Your task to perform on an android device: open app "Nova Launcher" (install if not already installed) and enter user name: "haggard@gmail.com" and password: "sadder" Image 0: 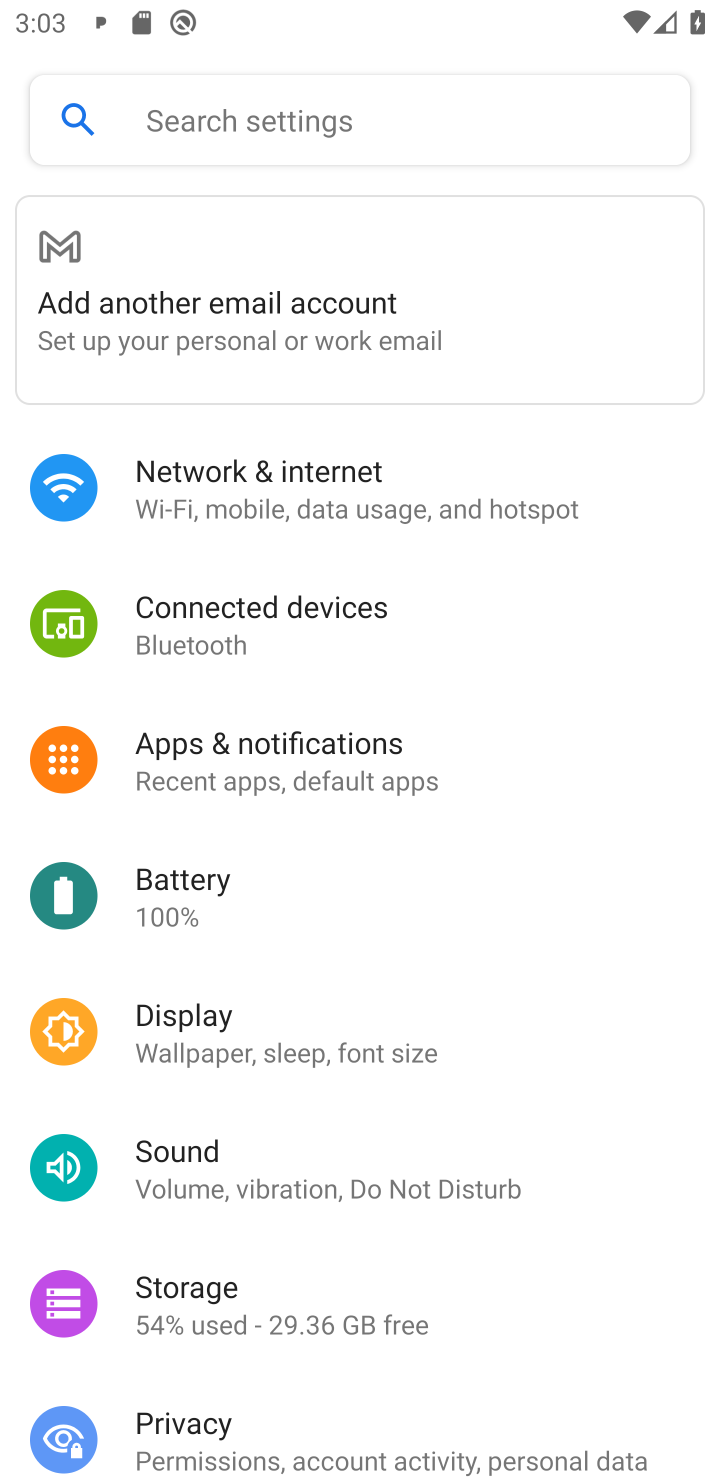
Step 0: click (338, 670)
Your task to perform on an android device: open app "Nova Launcher" (install if not already installed) and enter user name: "haggard@gmail.com" and password: "sadder" Image 1: 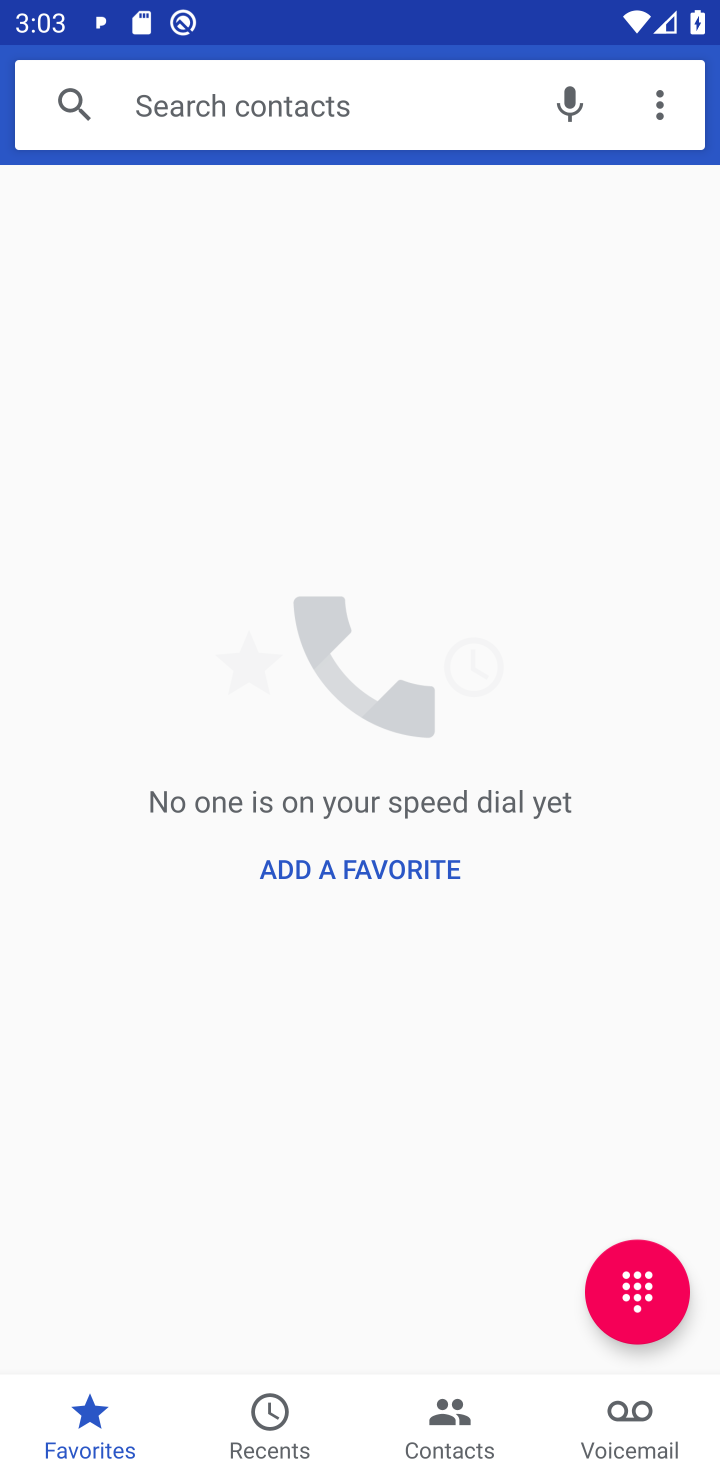
Step 1: press home button
Your task to perform on an android device: open app "Nova Launcher" (install if not already installed) and enter user name: "haggard@gmail.com" and password: "sadder" Image 2: 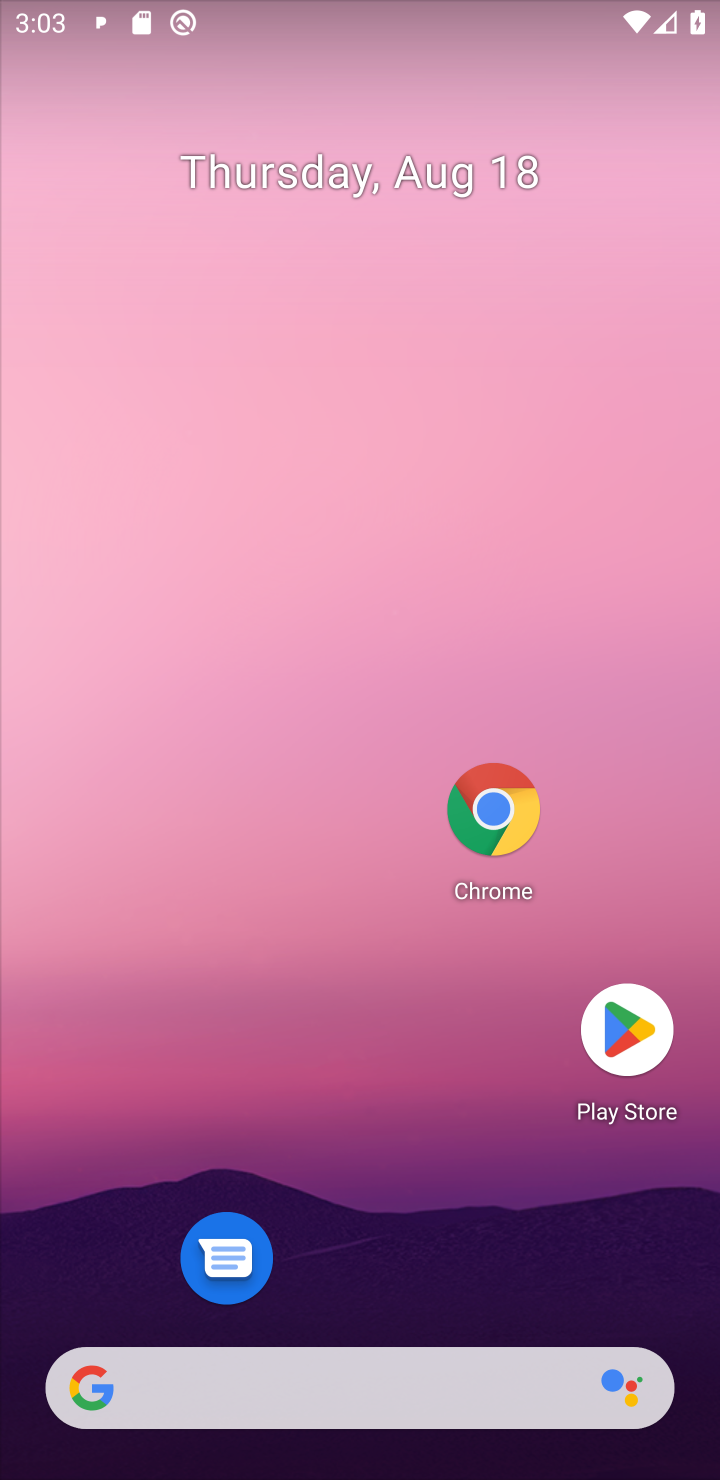
Step 2: click (619, 1015)
Your task to perform on an android device: open app "Nova Launcher" (install if not already installed) and enter user name: "haggard@gmail.com" and password: "sadder" Image 3: 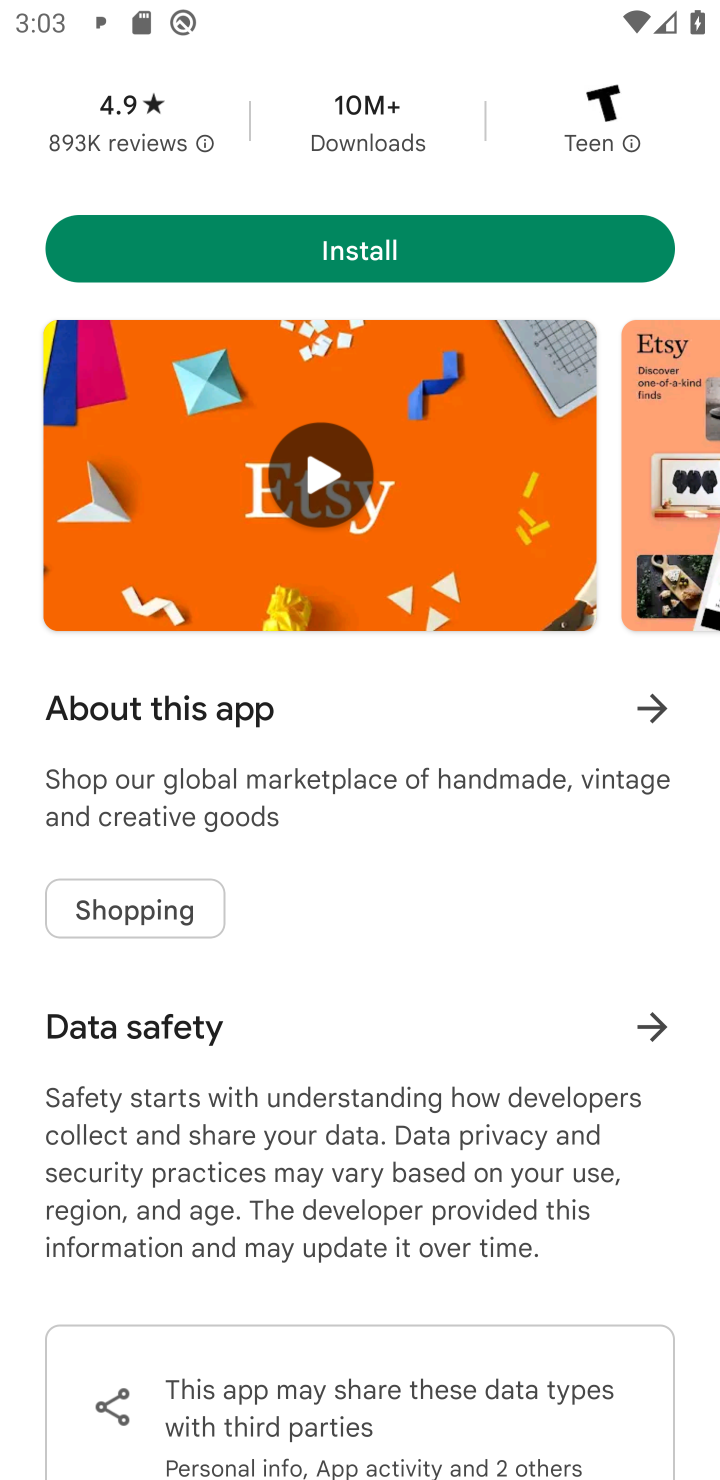
Step 3: drag from (264, 297) to (269, 1071)
Your task to perform on an android device: open app "Nova Launcher" (install if not already installed) and enter user name: "haggard@gmail.com" and password: "sadder" Image 4: 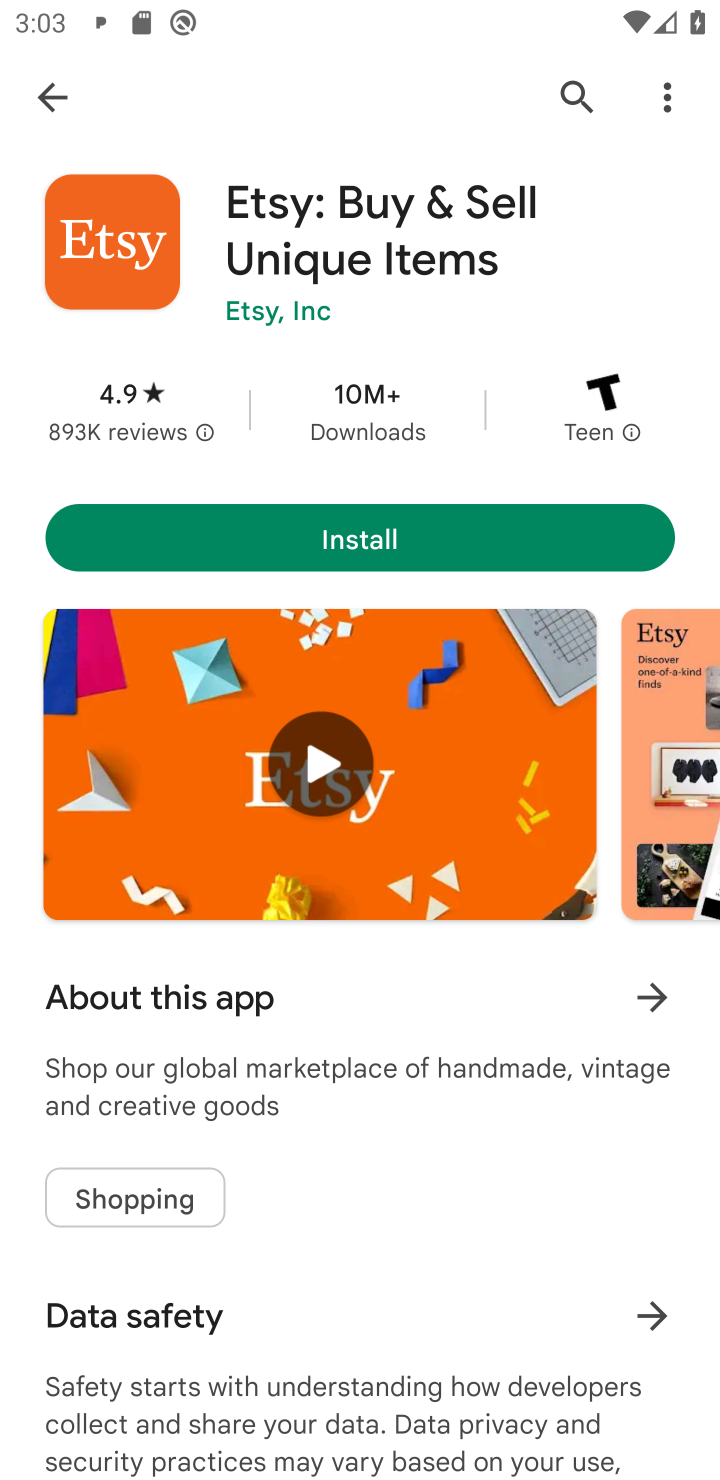
Step 4: click (45, 70)
Your task to perform on an android device: open app "Nova Launcher" (install if not already installed) and enter user name: "haggard@gmail.com" and password: "sadder" Image 5: 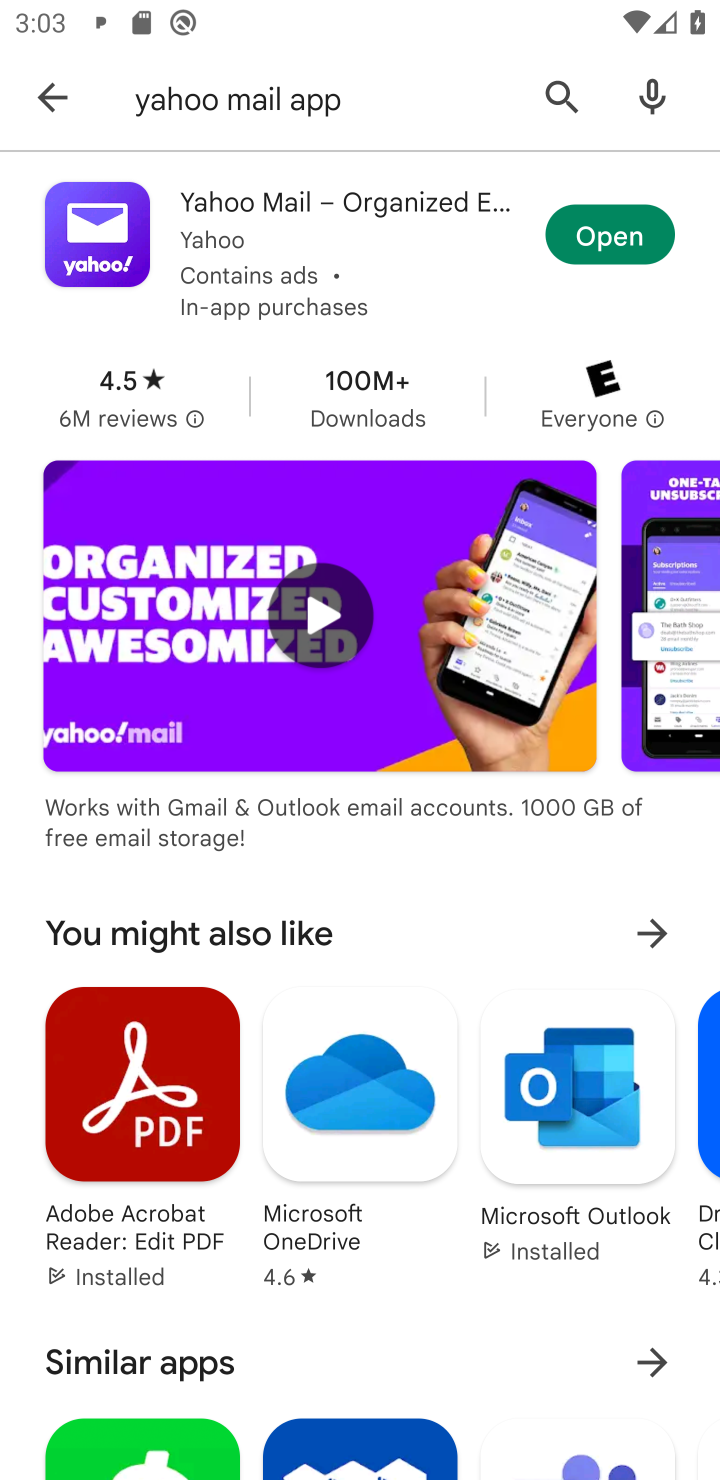
Step 5: click (80, 96)
Your task to perform on an android device: open app "Nova Launcher" (install if not already installed) and enter user name: "haggard@gmail.com" and password: "sadder" Image 6: 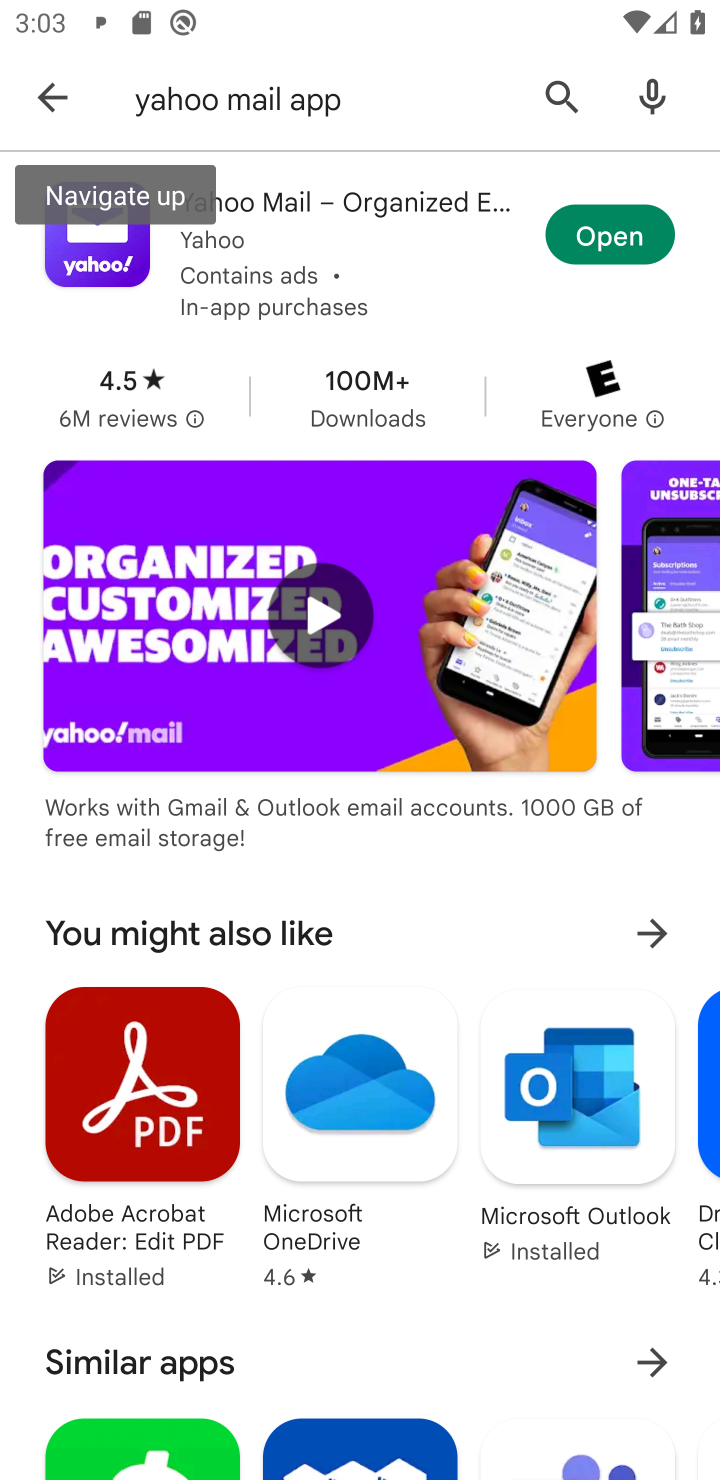
Step 6: click (580, 88)
Your task to perform on an android device: open app "Nova Launcher" (install if not already installed) and enter user name: "haggard@gmail.com" and password: "sadder" Image 7: 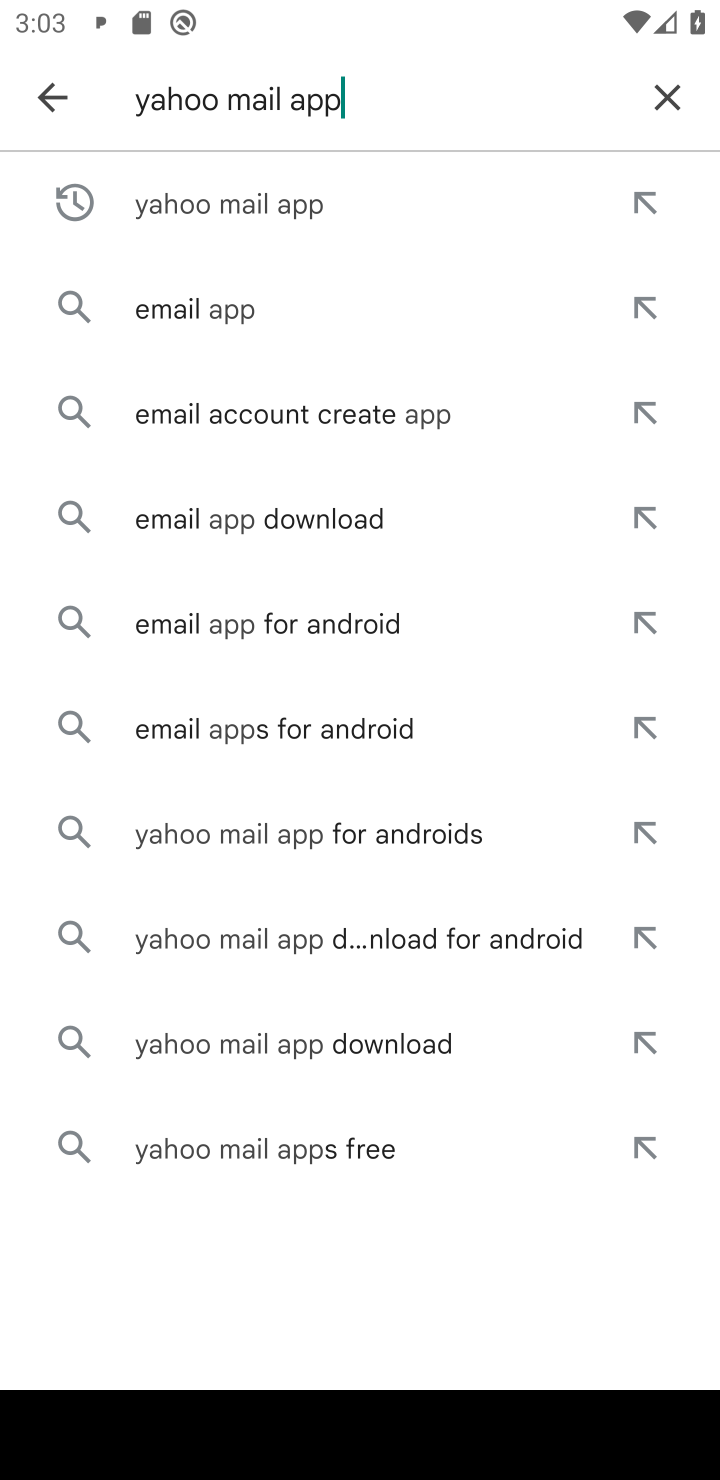
Step 7: click (682, 107)
Your task to perform on an android device: open app "Nova Launcher" (install if not already installed) and enter user name: "haggard@gmail.com" and password: "sadder" Image 8: 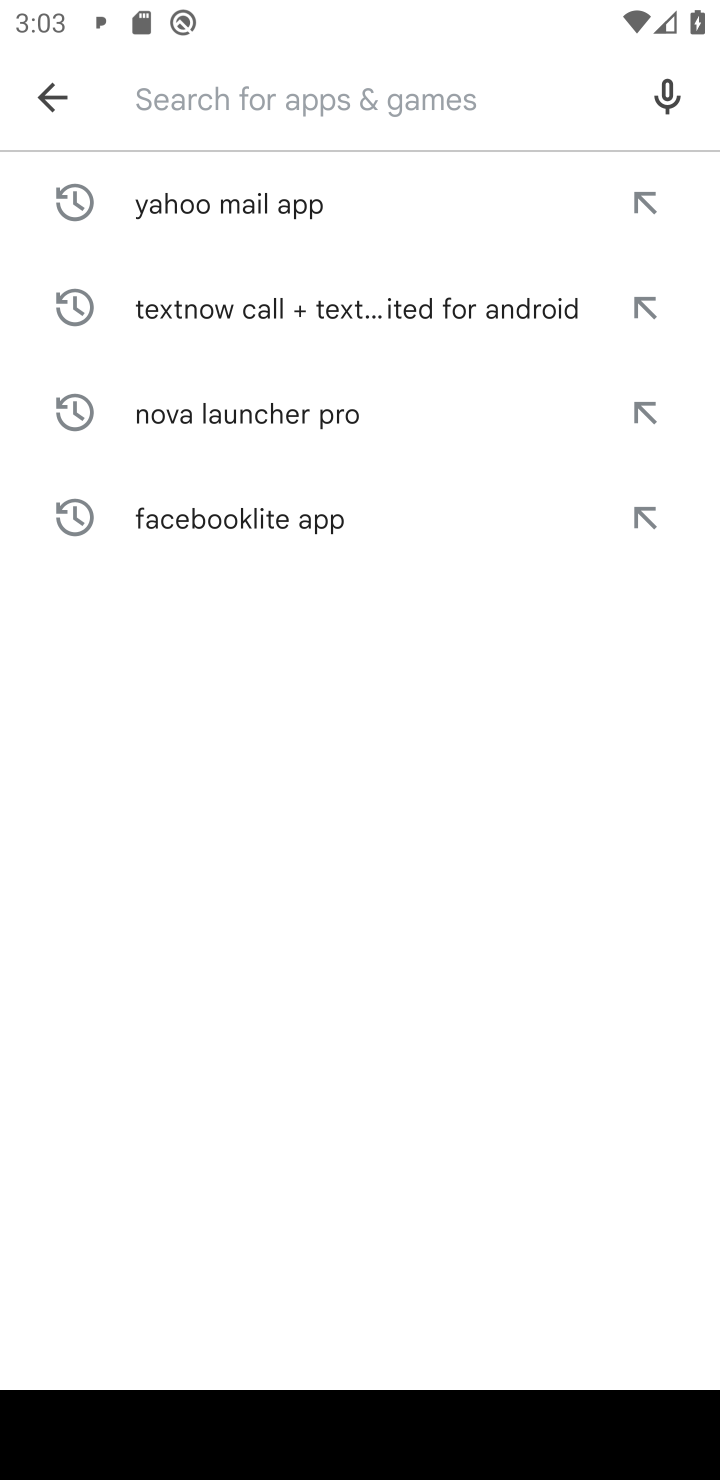
Step 8: click (402, 115)
Your task to perform on an android device: open app "Nova Launcher" (install if not already installed) and enter user name: "haggard@gmail.com" and password: "sadder" Image 9: 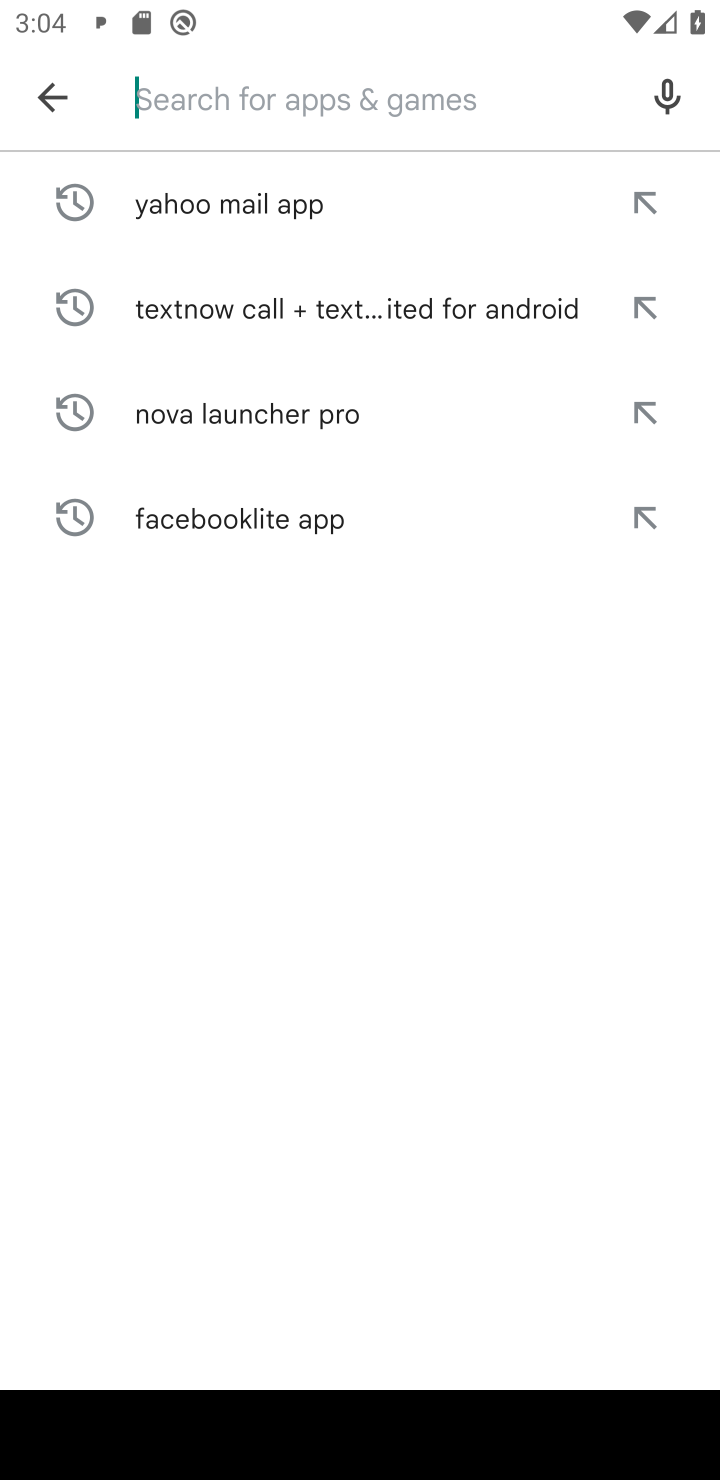
Step 9: type "nova launcher "
Your task to perform on an android device: open app "Nova Launcher" (install if not already installed) and enter user name: "haggard@gmail.com" and password: "sadder" Image 10: 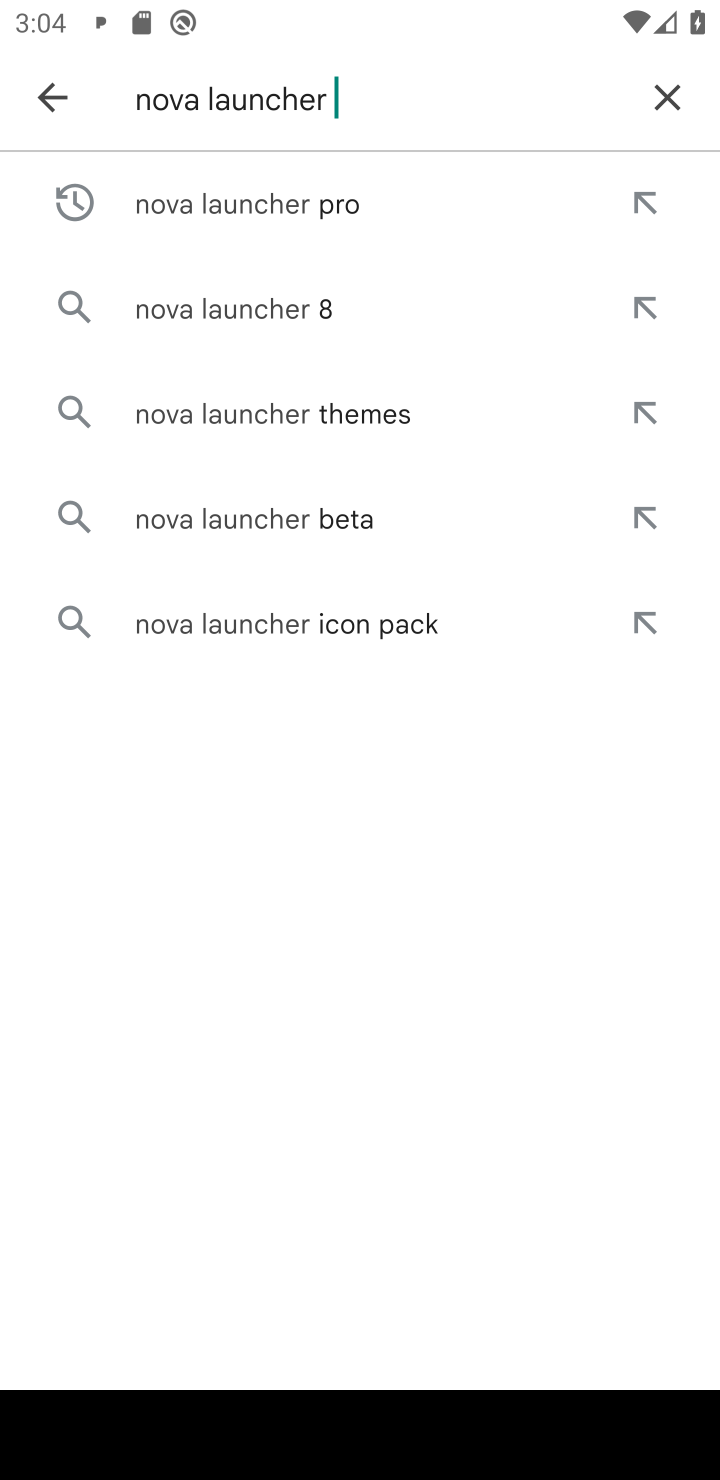
Step 10: click (219, 213)
Your task to perform on an android device: open app "Nova Launcher" (install if not already installed) and enter user name: "haggard@gmail.com" and password: "sadder" Image 11: 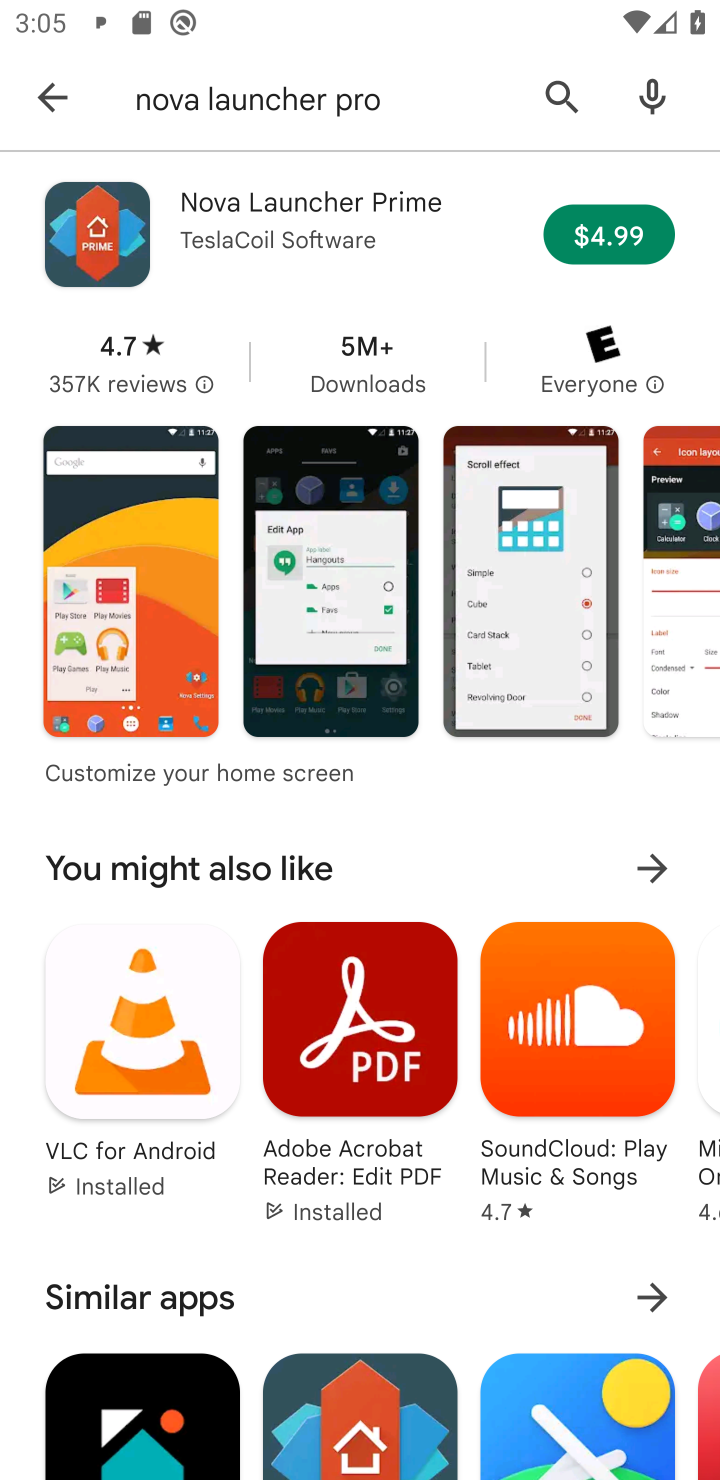
Step 11: task complete